Your task to perform on an android device: check out phone information Image 0: 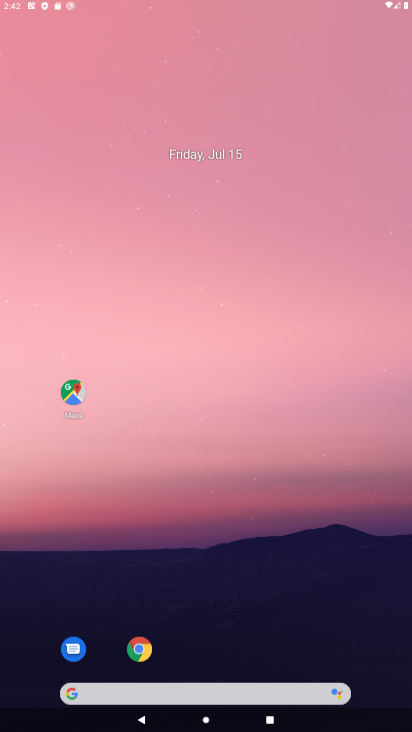
Step 0: drag from (291, 14) to (224, 48)
Your task to perform on an android device: check out phone information Image 1: 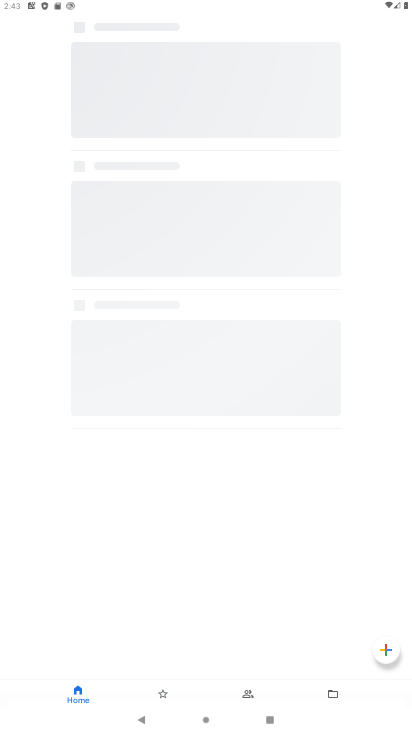
Step 1: drag from (206, 441) to (155, 99)
Your task to perform on an android device: check out phone information Image 2: 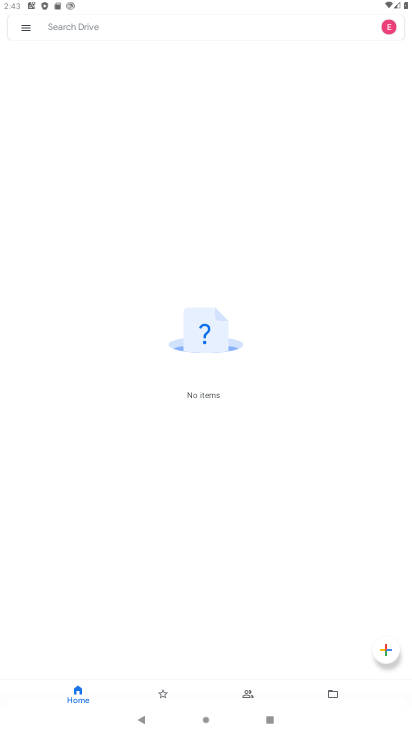
Step 2: press back button
Your task to perform on an android device: check out phone information Image 3: 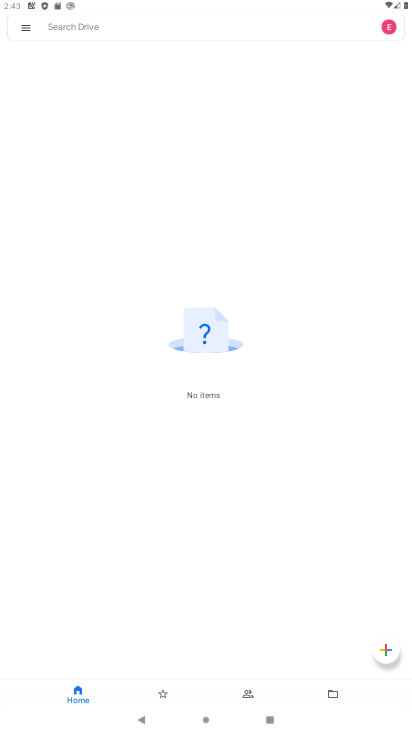
Step 3: press back button
Your task to perform on an android device: check out phone information Image 4: 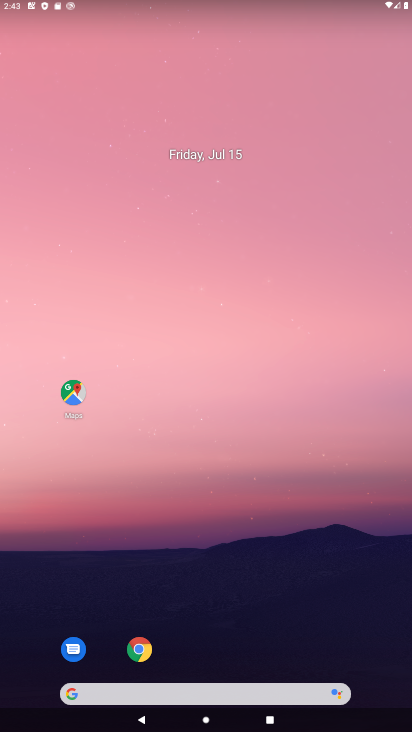
Step 4: drag from (241, 502) to (199, 220)
Your task to perform on an android device: check out phone information Image 5: 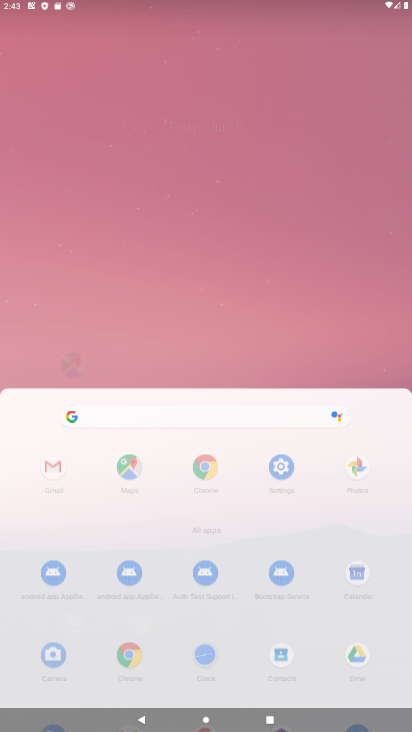
Step 5: drag from (276, 539) to (247, 47)
Your task to perform on an android device: check out phone information Image 6: 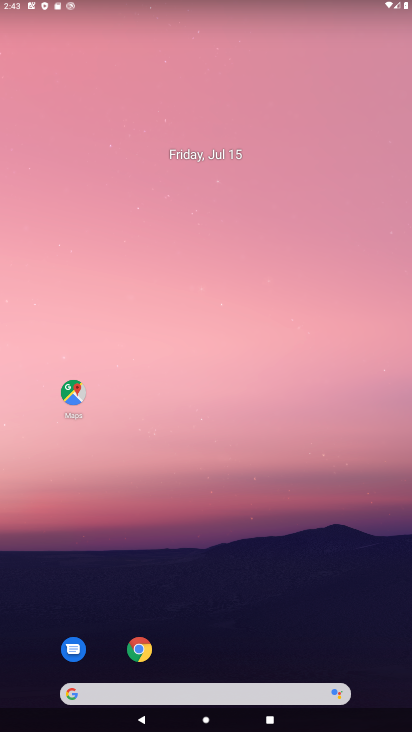
Step 6: drag from (174, 262) to (181, 0)
Your task to perform on an android device: check out phone information Image 7: 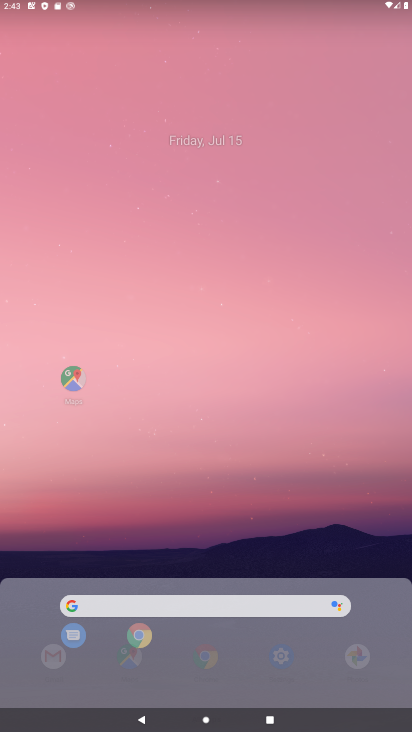
Step 7: drag from (165, 78) to (247, 126)
Your task to perform on an android device: check out phone information Image 8: 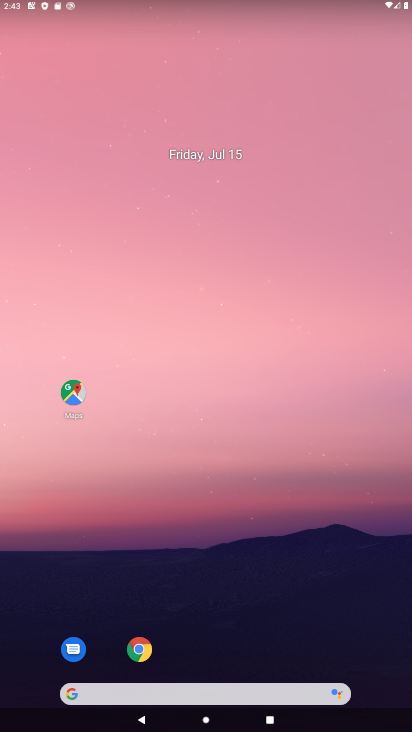
Step 8: drag from (193, 440) to (227, 101)
Your task to perform on an android device: check out phone information Image 9: 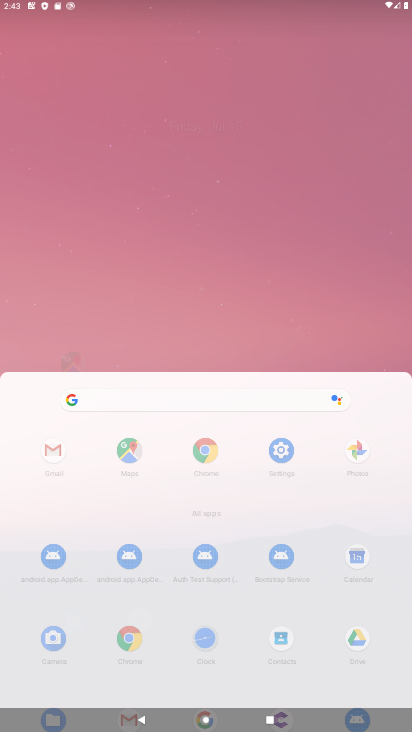
Step 9: drag from (229, 613) to (326, 102)
Your task to perform on an android device: check out phone information Image 10: 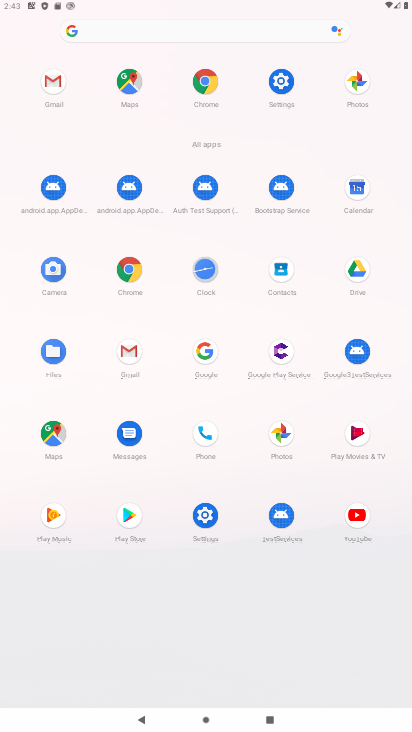
Step 10: drag from (178, 487) to (263, 5)
Your task to perform on an android device: check out phone information Image 11: 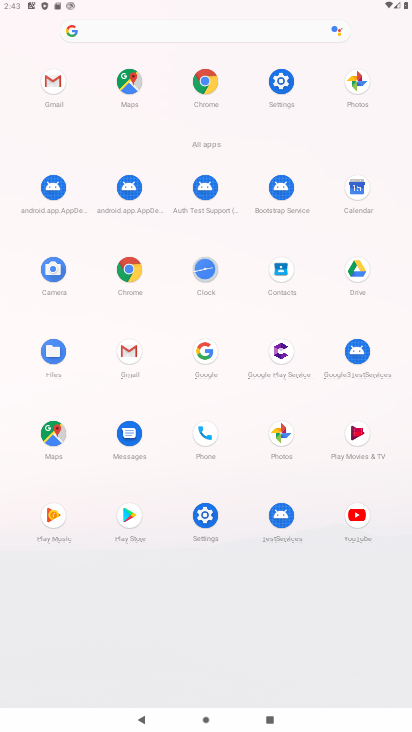
Step 11: click (207, 514)
Your task to perform on an android device: check out phone information Image 12: 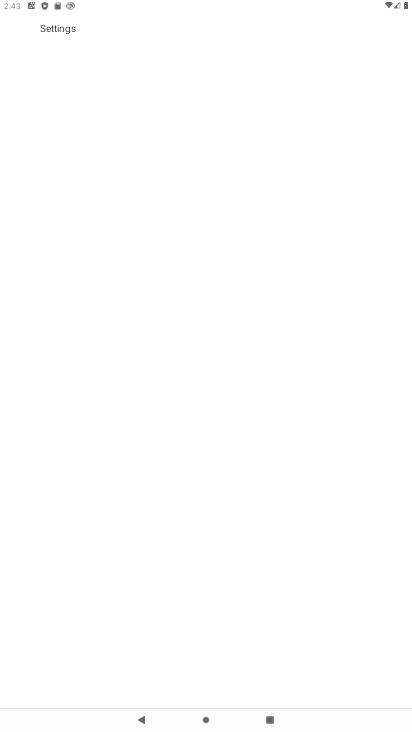
Step 12: click (207, 514)
Your task to perform on an android device: check out phone information Image 13: 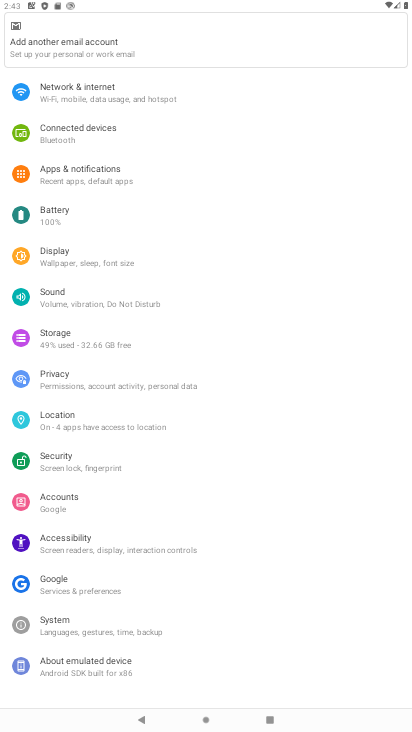
Step 13: click (64, 656)
Your task to perform on an android device: check out phone information Image 14: 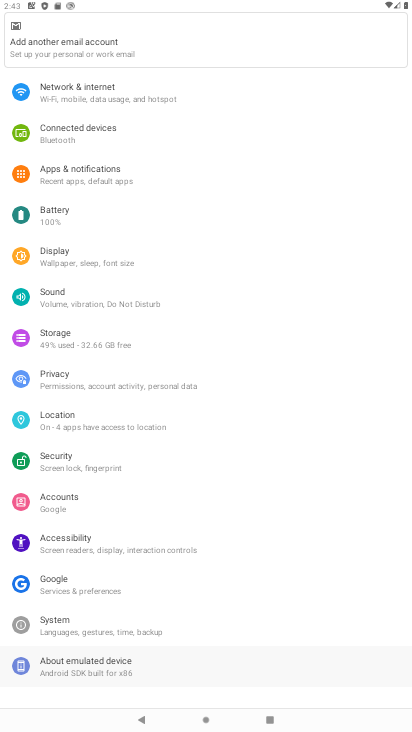
Step 14: click (63, 655)
Your task to perform on an android device: check out phone information Image 15: 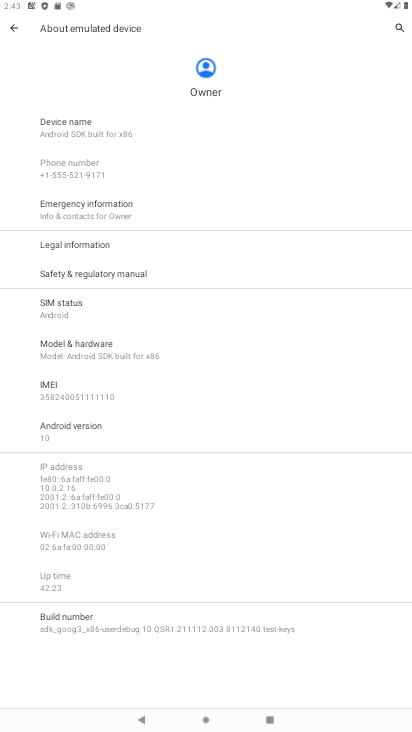
Step 15: task complete